Your task to perform on an android device: Turn off the flashlight Image 0: 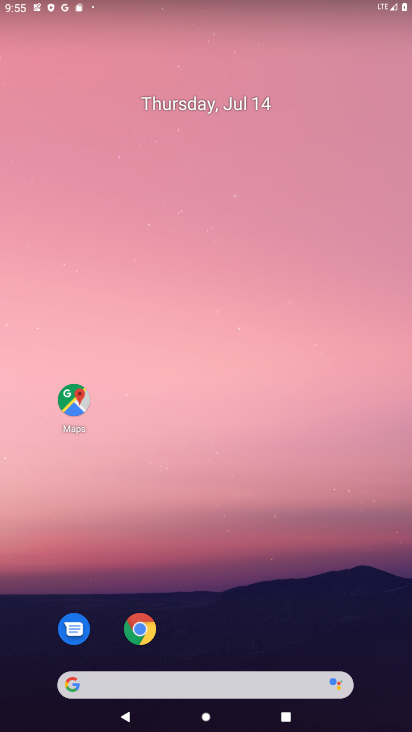
Step 0: drag from (4, 718) to (303, 80)
Your task to perform on an android device: Turn off the flashlight Image 1: 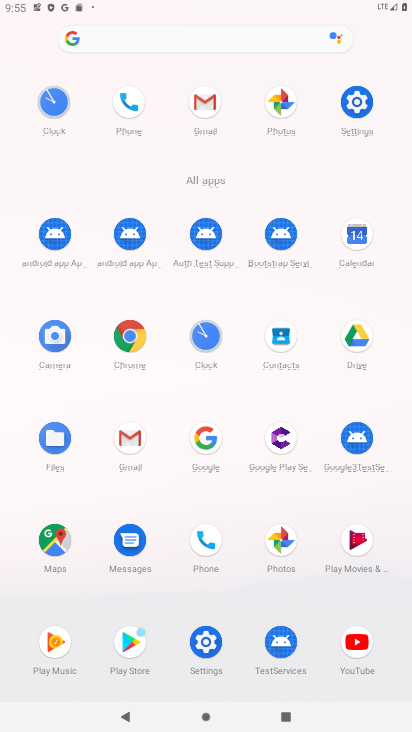
Step 1: click (375, 111)
Your task to perform on an android device: Turn off the flashlight Image 2: 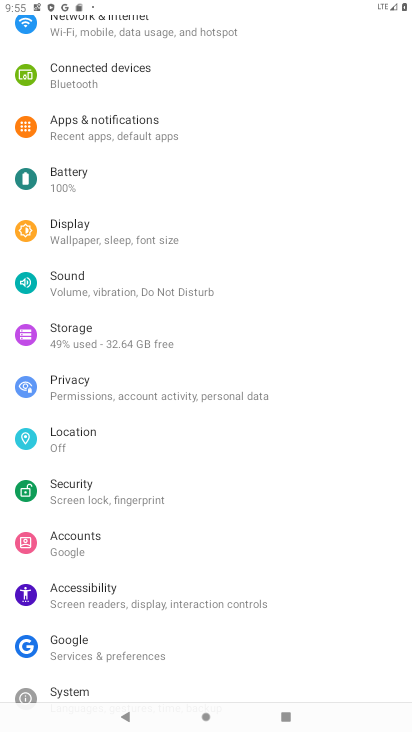
Step 2: task complete